Your task to perform on an android device: see tabs open on other devices in the chrome app Image 0: 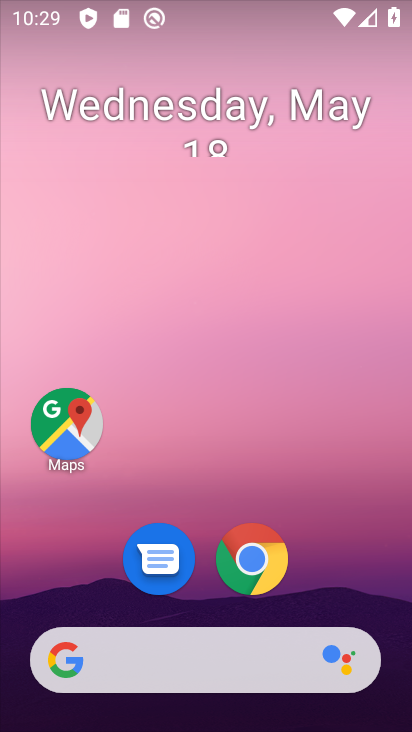
Step 0: click (259, 571)
Your task to perform on an android device: see tabs open on other devices in the chrome app Image 1: 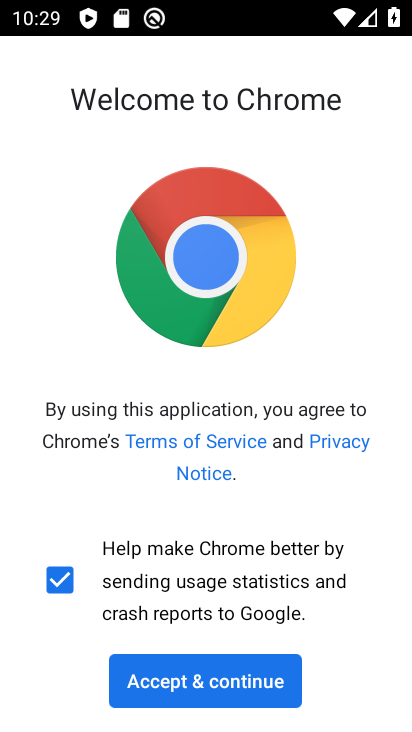
Step 1: click (217, 682)
Your task to perform on an android device: see tabs open on other devices in the chrome app Image 2: 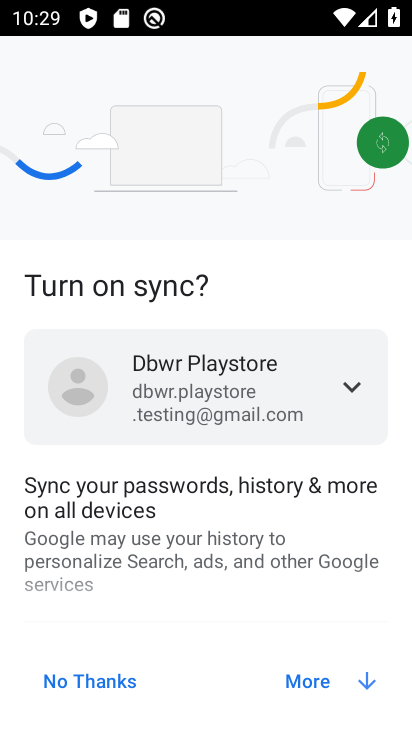
Step 2: click (321, 689)
Your task to perform on an android device: see tabs open on other devices in the chrome app Image 3: 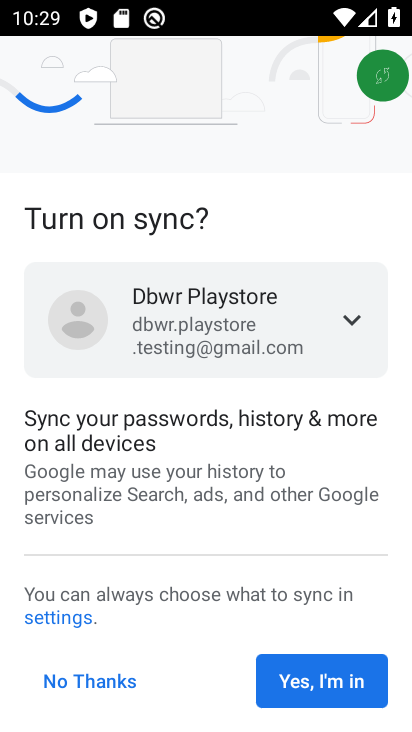
Step 3: click (321, 689)
Your task to perform on an android device: see tabs open on other devices in the chrome app Image 4: 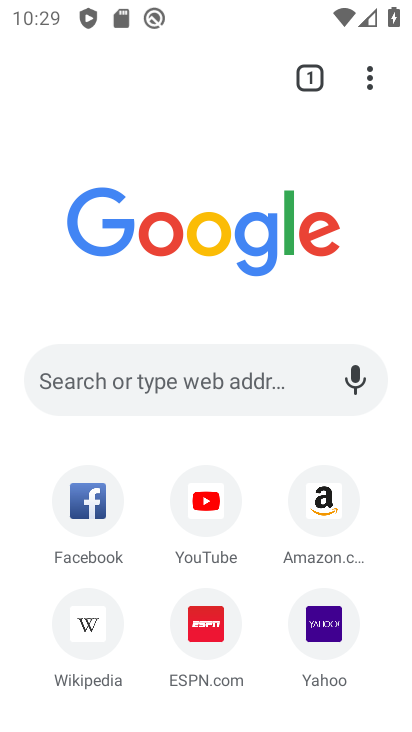
Step 4: click (371, 84)
Your task to perform on an android device: see tabs open on other devices in the chrome app Image 5: 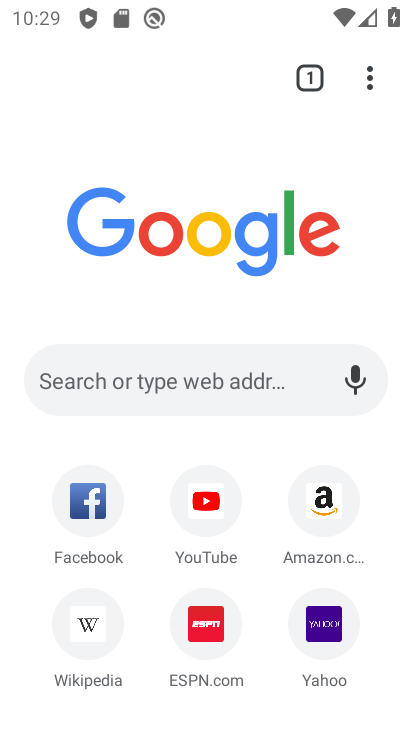
Step 5: click (367, 81)
Your task to perform on an android device: see tabs open on other devices in the chrome app Image 6: 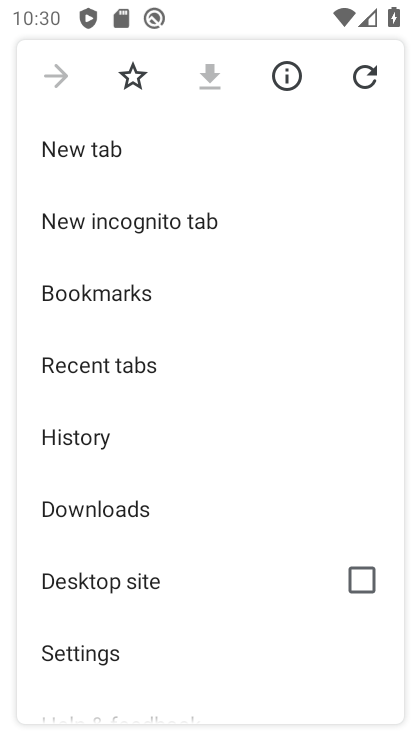
Step 6: click (128, 371)
Your task to perform on an android device: see tabs open on other devices in the chrome app Image 7: 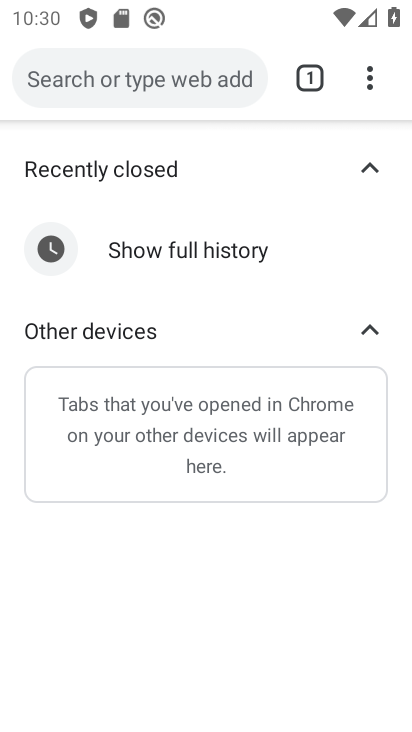
Step 7: task complete